Your task to perform on an android device: turn off improve location accuracy Image 0: 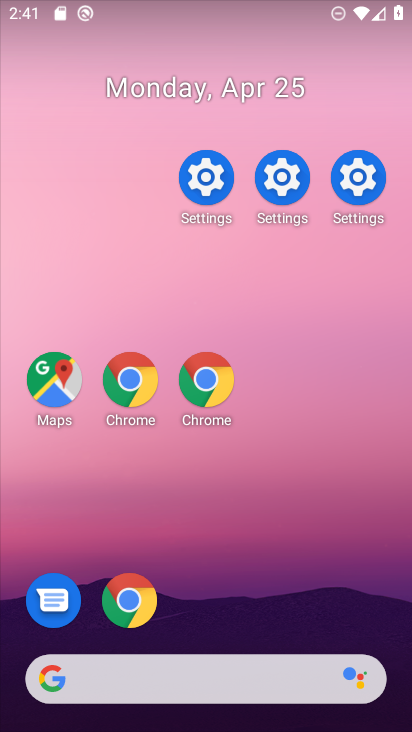
Step 0: drag from (327, 731) to (278, 89)
Your task to perform on an android device: turn off improve location accuracy Image 1: 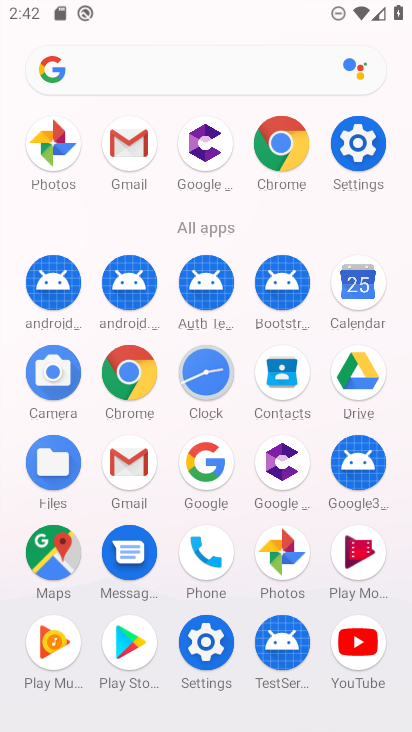
Step 1: click (362, 148)
Your task to perform on an android device: turn off improve location accuracy Image 2: 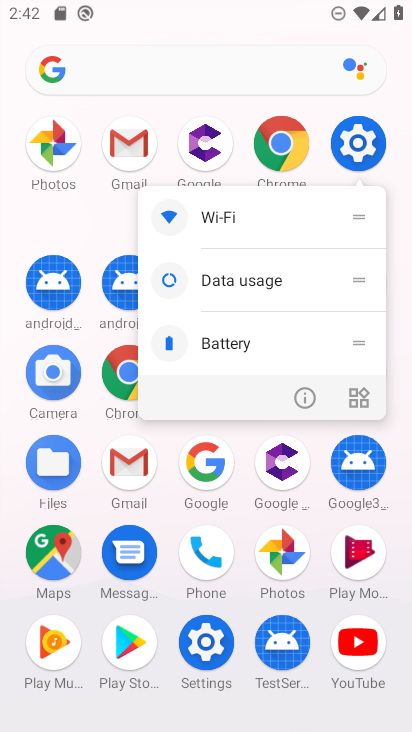
Step 2: click (362, 148)
Your task to perform on an android device: turn off improve location accuracy Image 3: 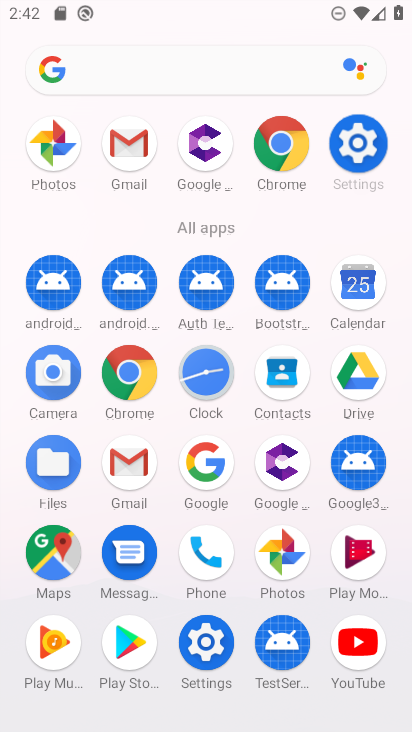
Step 3: click (362, 148)
Your task to perform on an android device: turn off improve location accuracy Image 4: 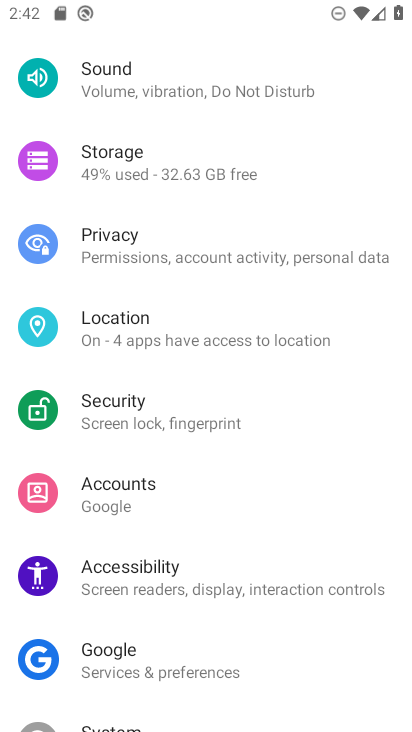
Step 4: click (136, 330)
Your task to perform on an android device: turn off improve location accuracy Image 5: 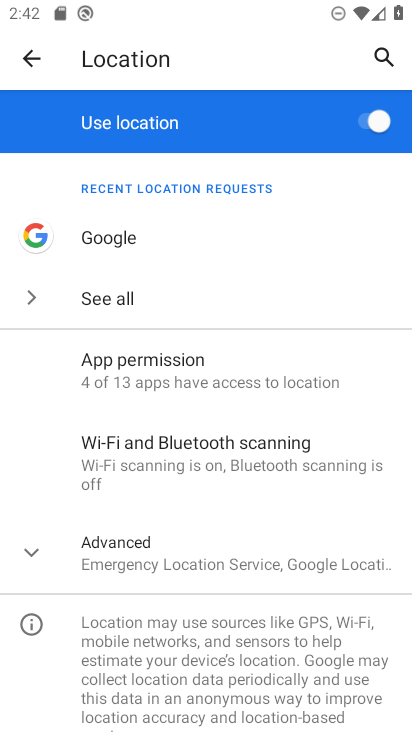
Step 5: click (150, 372)
Your task to perform on an android device: turn off improve location accuracy Image 6: 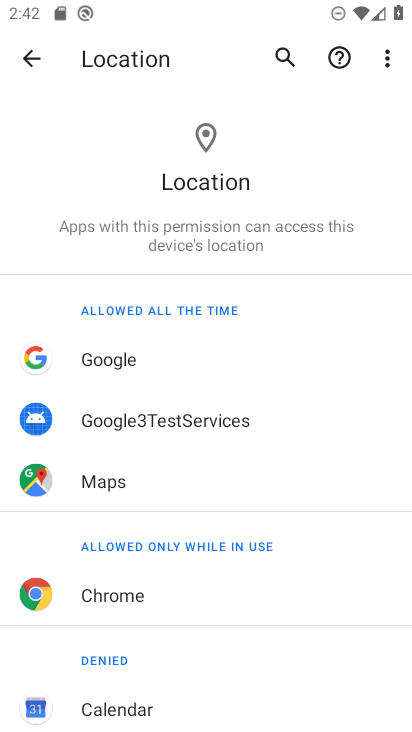
Step 6: click (34, 55)
Your task to perform on an android device: turn off improve location accuracy Image 7: 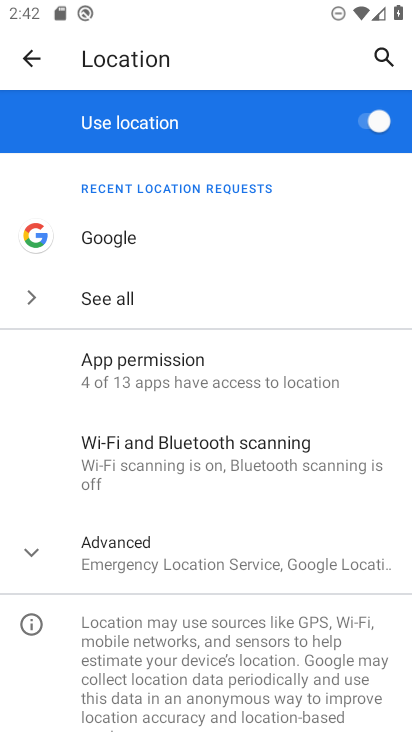
Step 7: click (171, 553)
Your task to perform on an android device: turn off improve location accuracy Image 8: 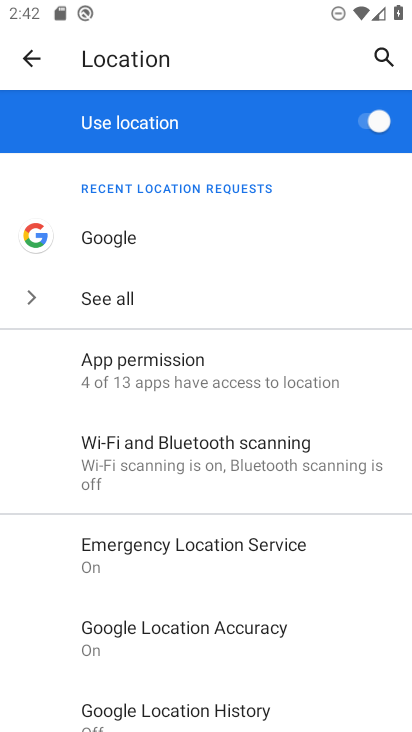
Step 8: click (161, 627)
Your task to perform on an android device: turn off improve location accuracy Image 9: 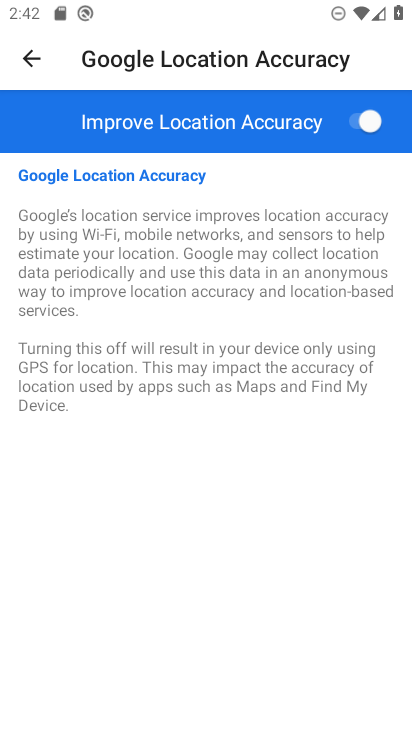
Step 9: click (357, 114)
Your task to perform on an android device: turn off improve location accuracy Image 10: 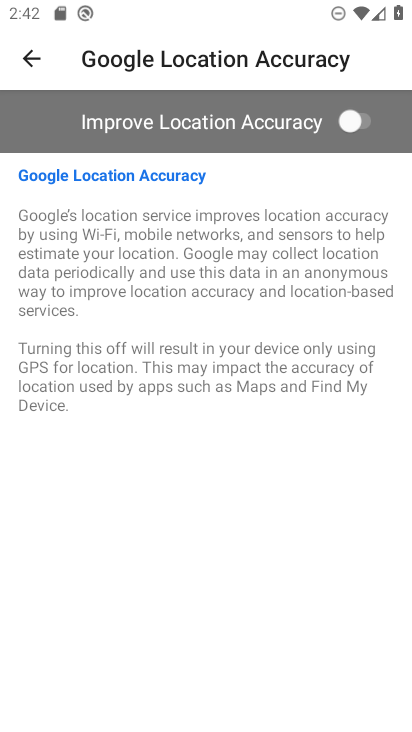
Step 10: task complete